Your task to perform on an android device: Is it going to rain tomorrow? Image 0: 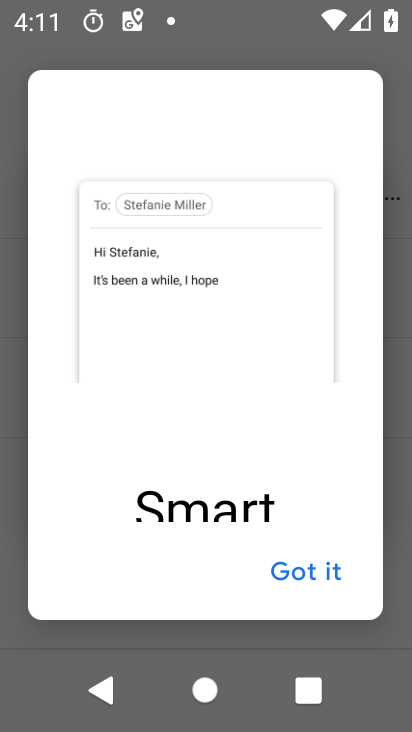
Step 0: press home button
Your task to perform on an android device: Is it going to rain tomorrow? Image 1: 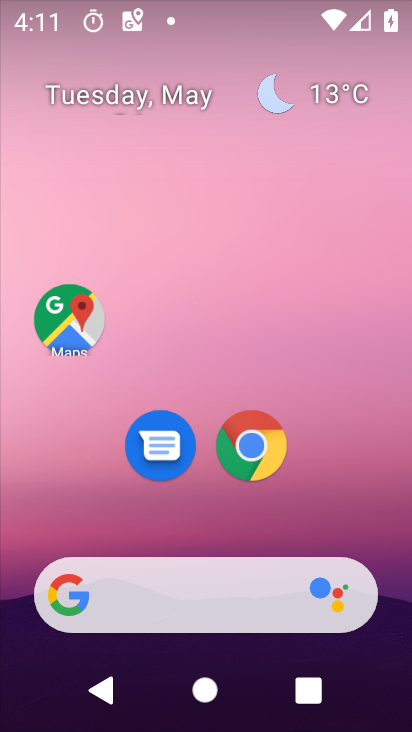
Step 1: click (330, 87)
Your task to perform on an android device: Is it going to rain tomorrow? Image 2: 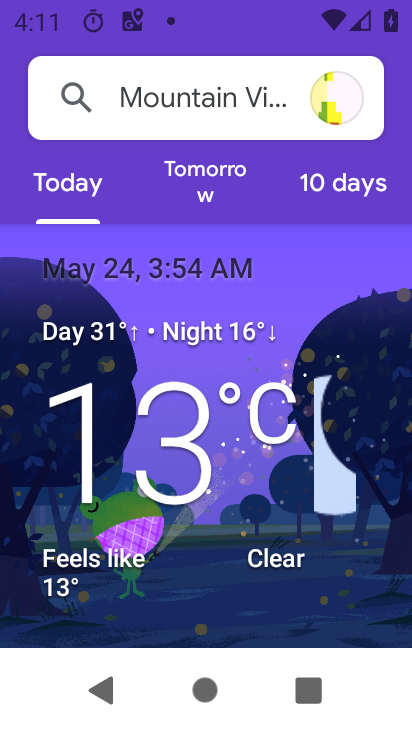
Step 2: click (200, 183)
Your task to perform on an android device: Is it going to rain tomorrow? Image 3: 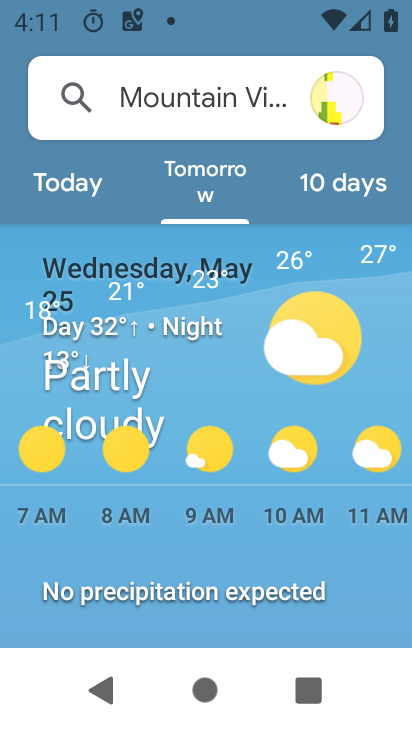
Step 3: drag from (366, 452) to (7, 462)
Your task to perform on an android device: Is it going to rain tomorrow? Image 4: 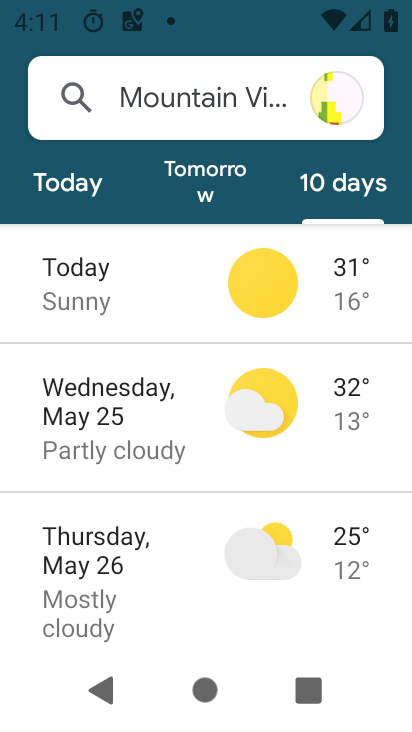
Step 4: click (199, 180)
Your task to perform on an android device: Is it going to rain tomorrow? Image 5: 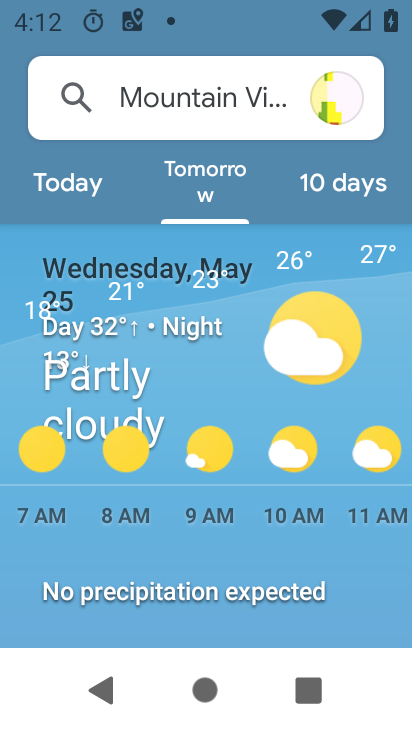
Step 5: task complete